Your task to perform on an android device: Play the last video I watched on Youtube Image 0: 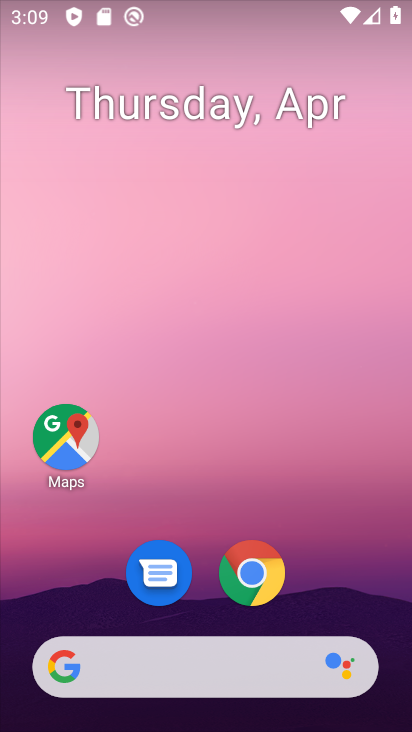
Step 0: drag from (340, 603) to (243, 16)
Your task to perform on an android device: Play the last video I watched on Youtube Image 1: 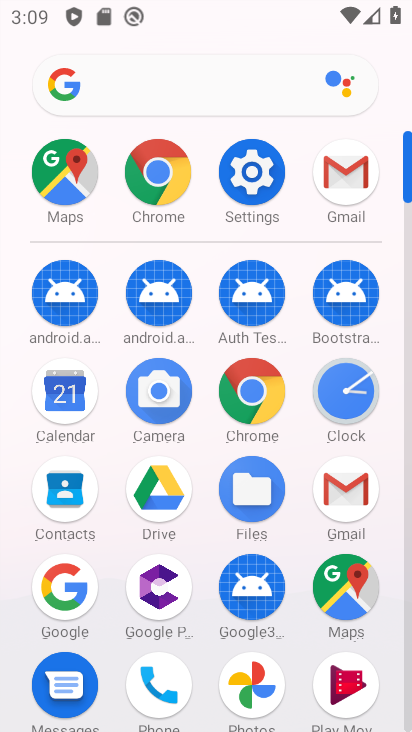
Step 1: click (405, 726)
Your task to perform on an android device: Play the last video I watched on Youtube Image 2: 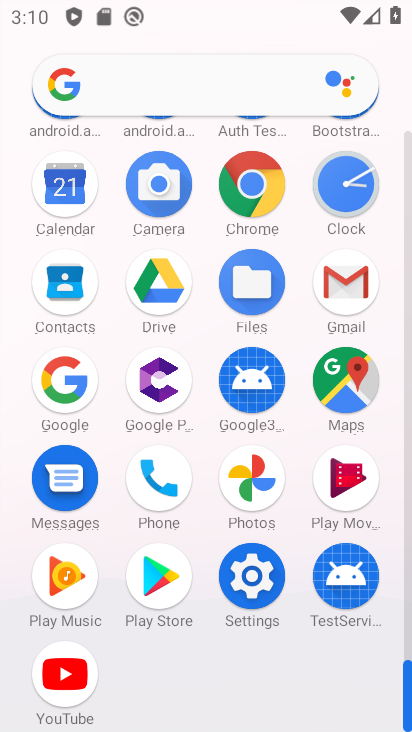
Step 2: click (52, 684)
Your task to perform on an android device: Play the last video I watched on Youtube Image 3: 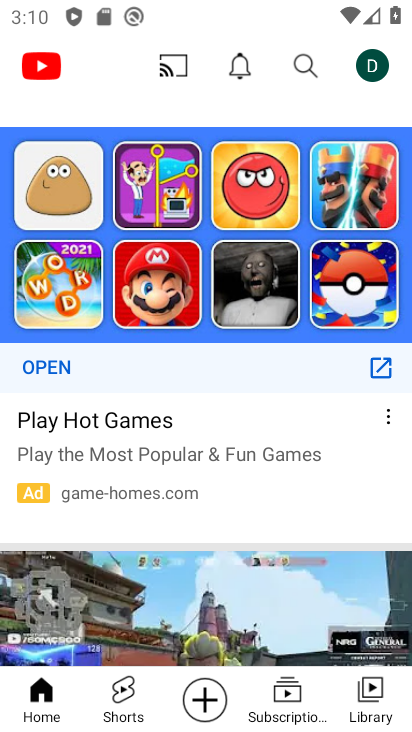
Step 3: click (361, 695)
Your task to perform on an android device: Play the last video I watched on Youtube Image 4: 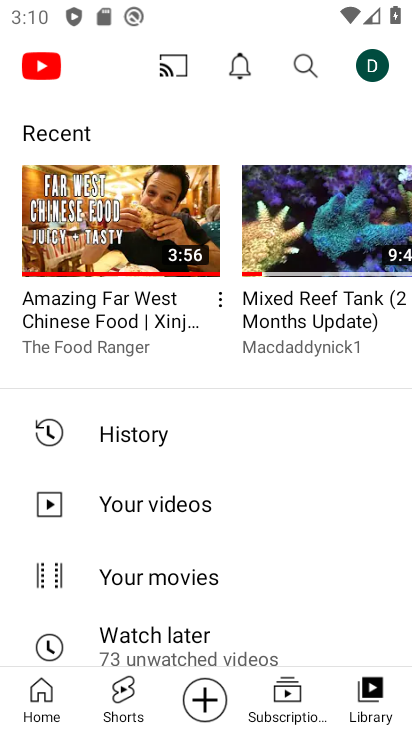
Step 4: click (127, 212)
Your task to perform on an android device: Play the last video I watched on Youtube Image 5: 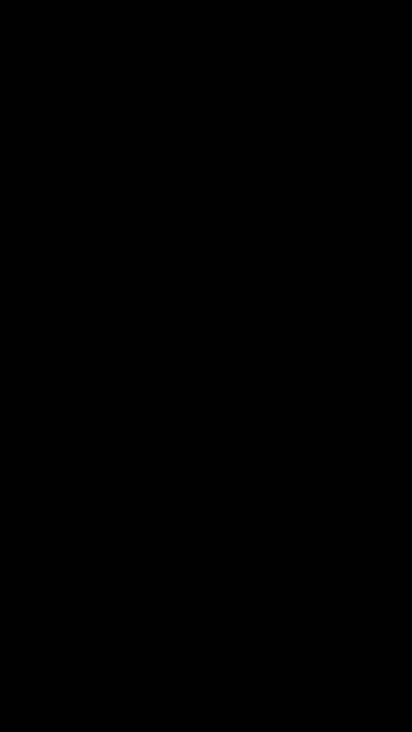
Step 5: task complete